Your task to perform on an android device: install app "Google Chrome" Image 0: 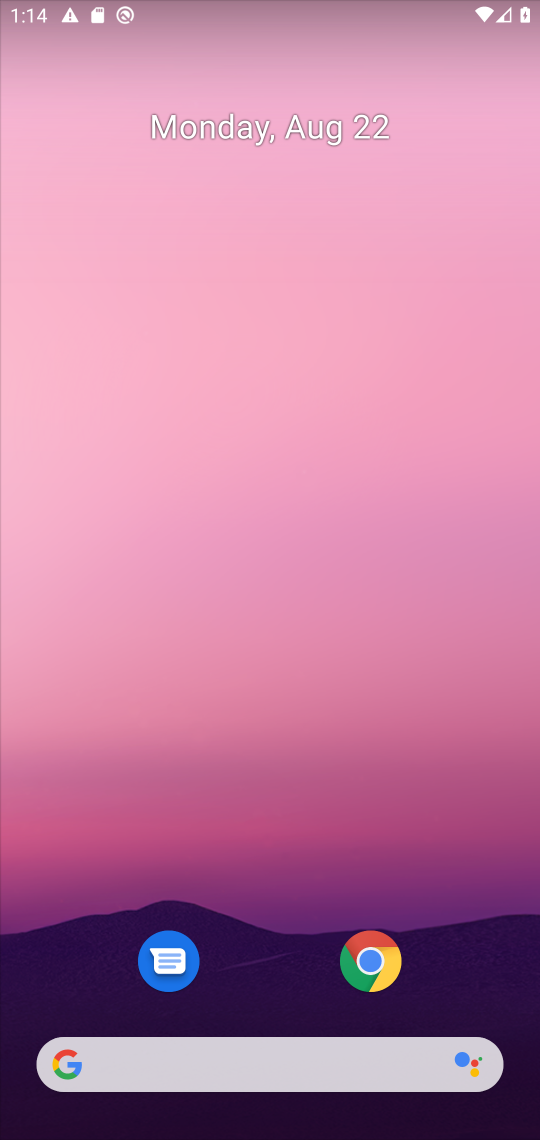
Step 0: drag from (480, 976) to (437, 340)
Your task to perform on an android device: install app "Google Chrome" Image 1: 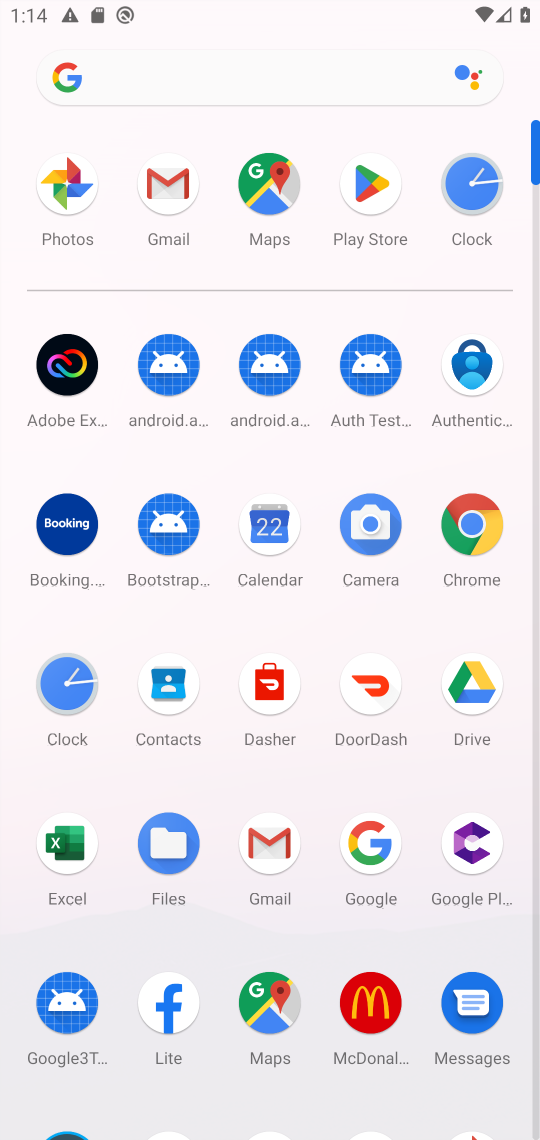
Step 1: click (437, 338)
Your task to perform on an android device: install app "Google Chrome" Image 2: 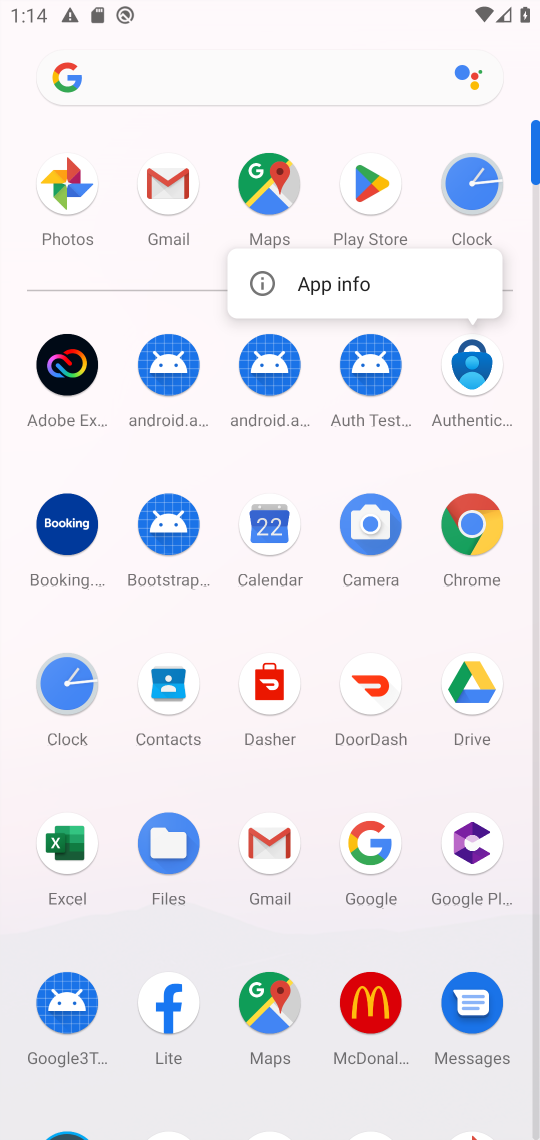
Step 2: click (380, 193)
Your task to perform on an android device: install app "Google Chrome" Image 3: 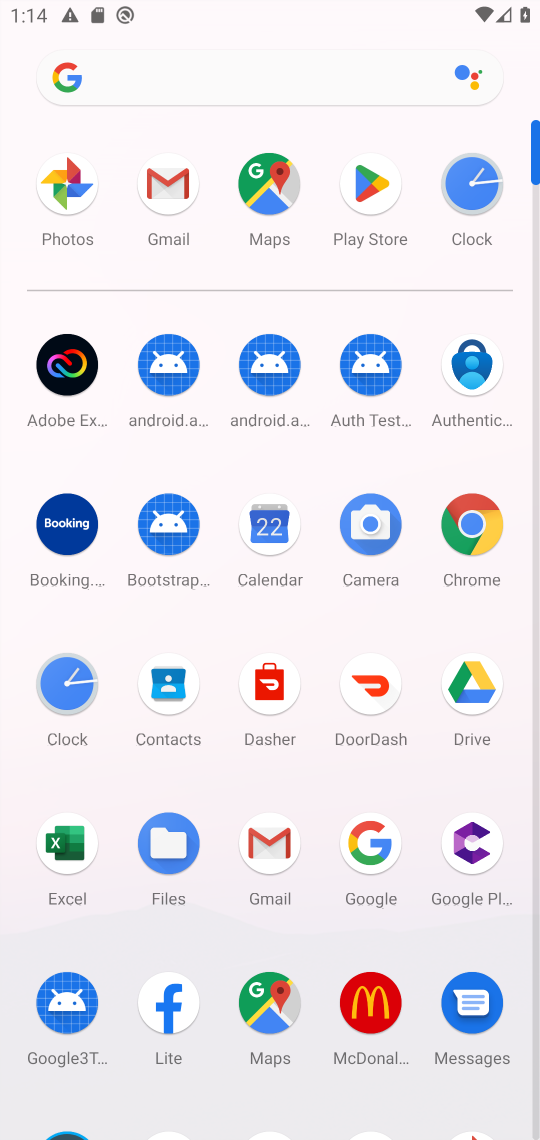
Step 3: click (369, 193)
Your task to perform on an android device: install app "Google Chrome" Image 4: 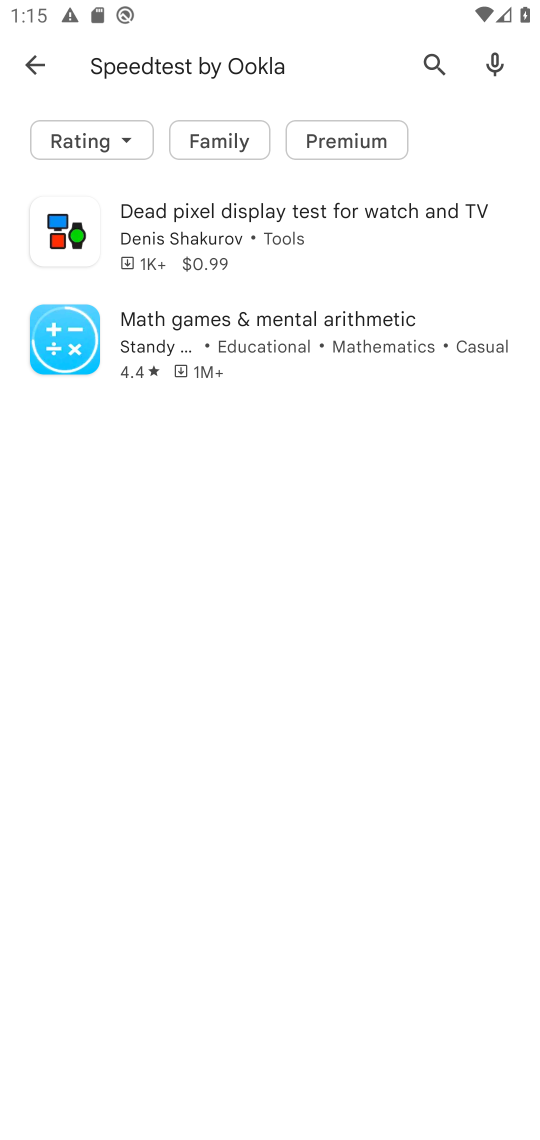
Step 4: press back button
Your task to perform on an android device: install app "Google Chrome" Image 5: 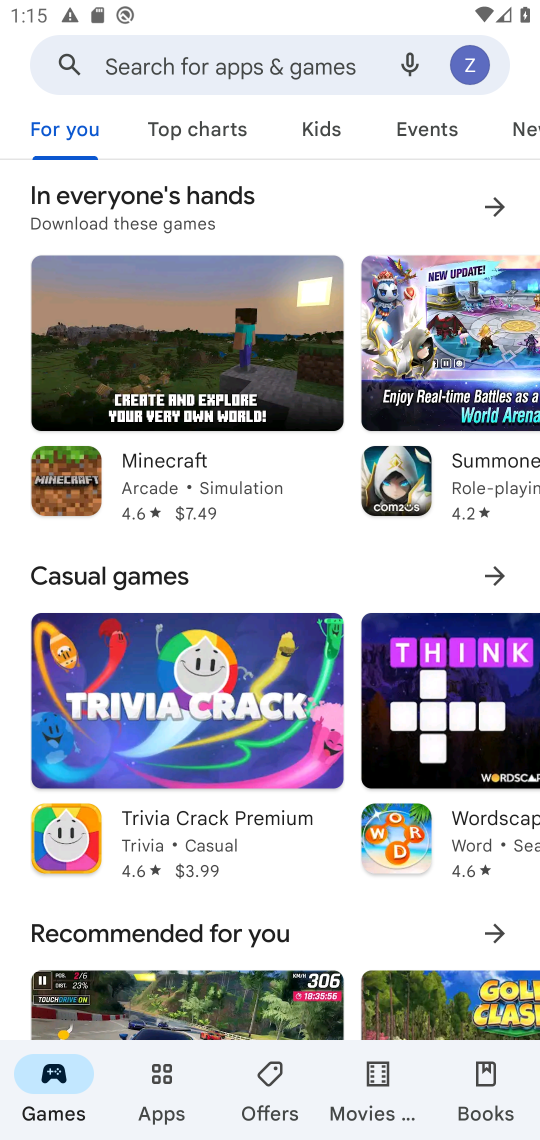
Step 5: click (243, 72)
Your task to perform on an android device: install app "Google Chrome" Image 6: 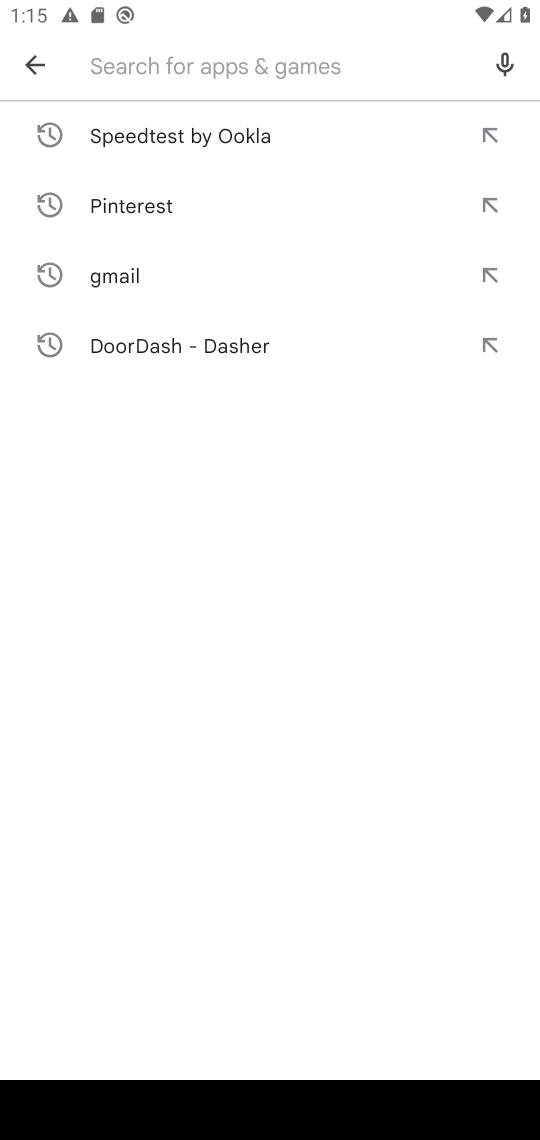
Step 6: press enter
Your task to perform on an android device: install app "Google Chrome" Image 7: 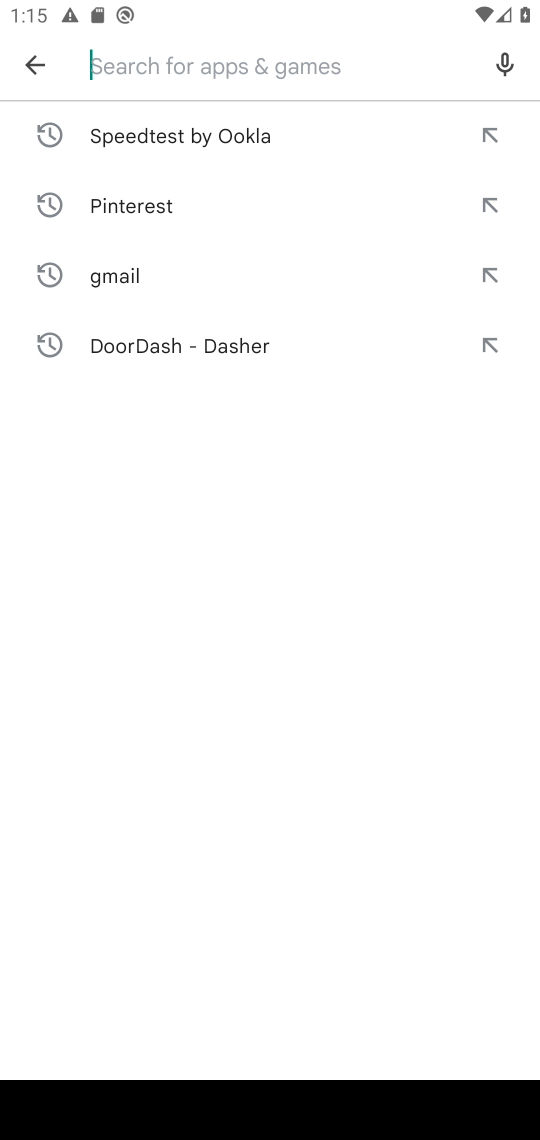
Step 7: type "Google Chrome"
Your task to perform on an android device: install app "Google Chrome" Image 8: 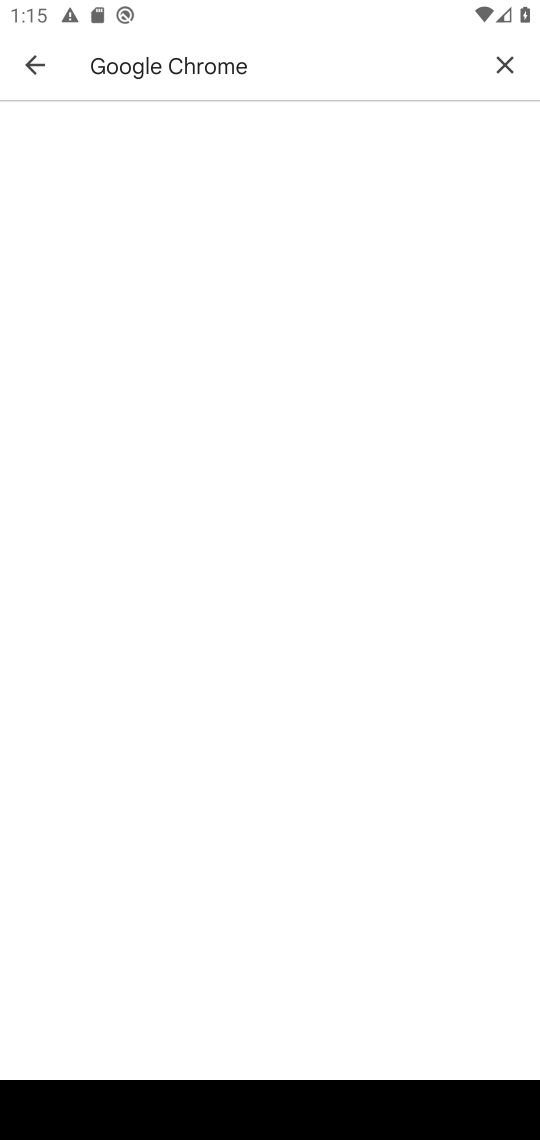
Step 8: task complete